Your task to perform on an android device: Open Amazon Image 0: 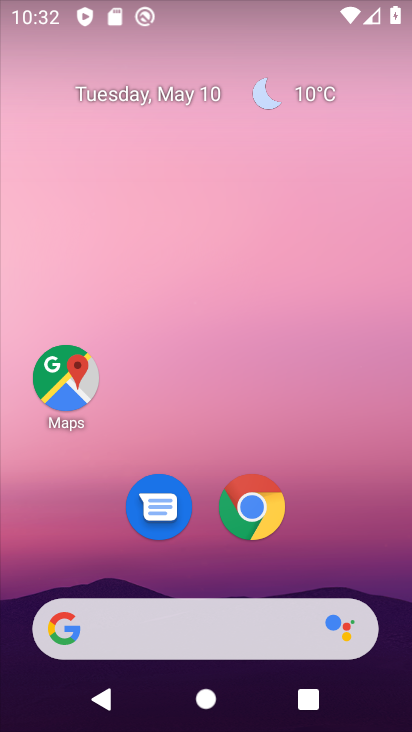
Step 0: click (248, 504)
Your task to perform on an android device: Open Amazon Image 1: 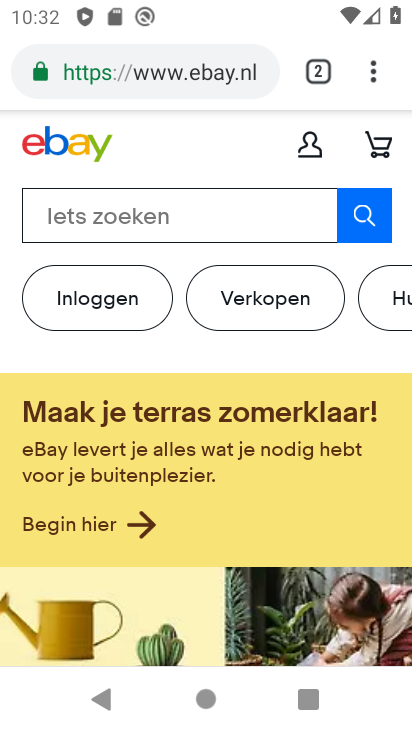
Step 1: click (375, 74)
Your task to perform on an android device: Open Amazon Image 2: 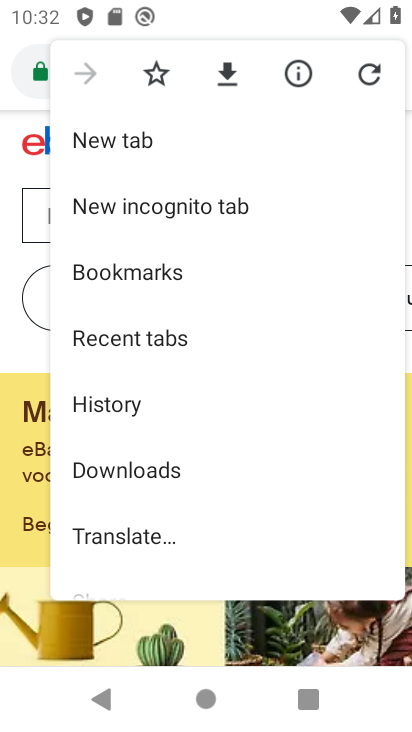
Step 2: click (124, 138)
Your task to perform on an android device: Open Amazon Image 3: 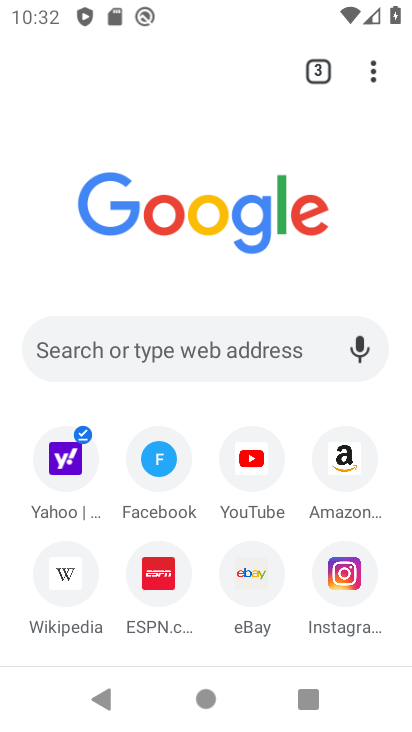
Step 3: click (344, 469)
Your task to perform on an android device: Open Amazon Image 4: 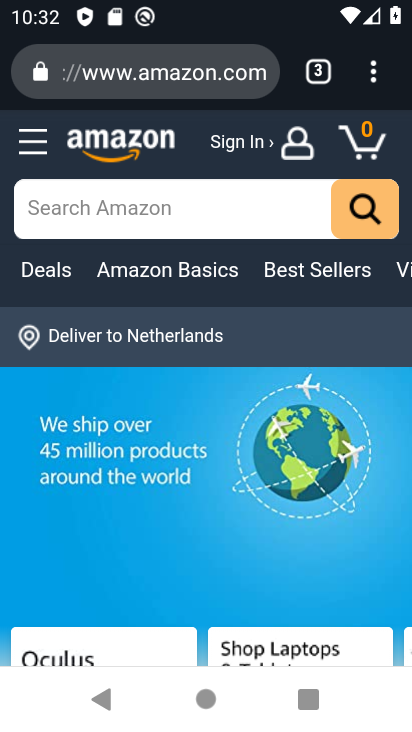
Step 4: task complete